Your task to perform on an android device: Open network settings Image 0: 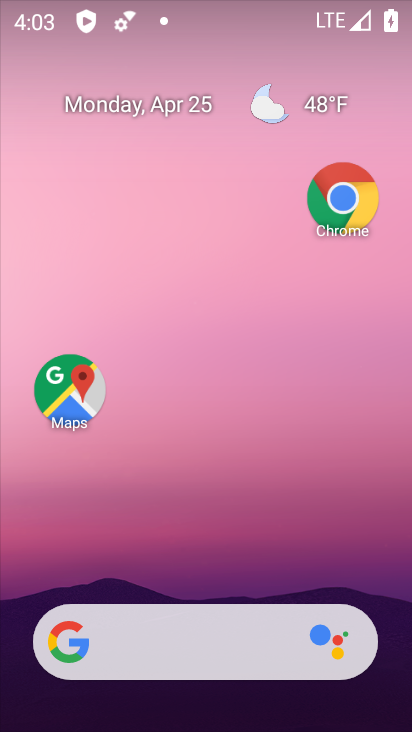
Step 0: drag from (172, 649) to (288, 148)
Your task to perform on an android device: Open network settings Image 1: 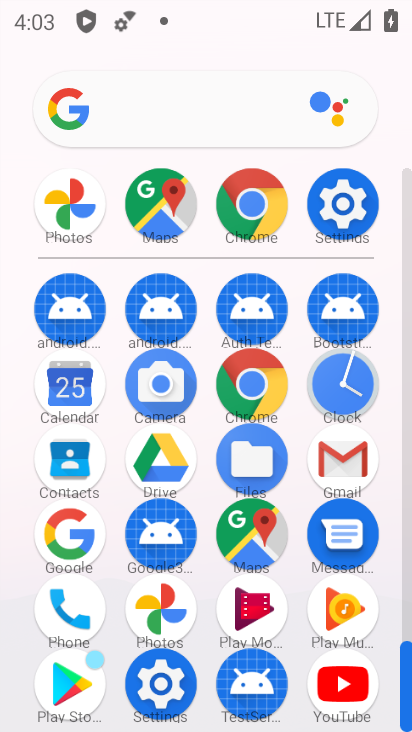
Step 1: click (346, 210)
Your task to perform on an android device: Open network settings Image 2: 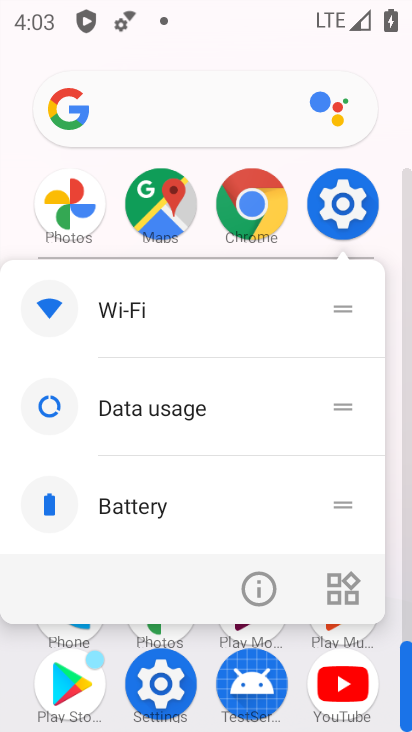
Step 2: click (346, 213)
Your task to perform on an android device: Open network settings Image 3: 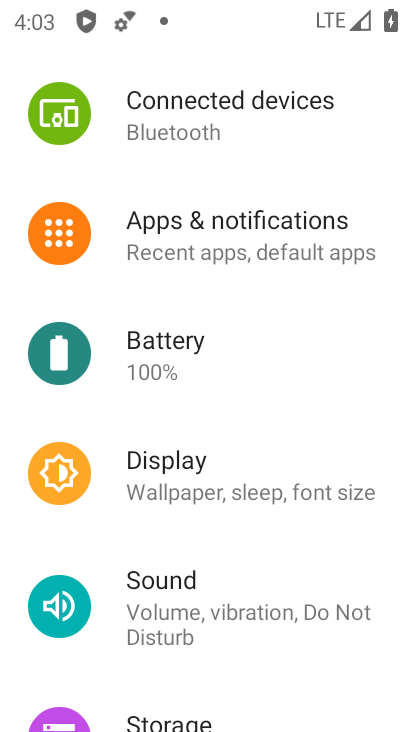
Step 3: drag from (308, 152) to (222, 615)
Your task to perform on an android device: Open network settings Image 4: 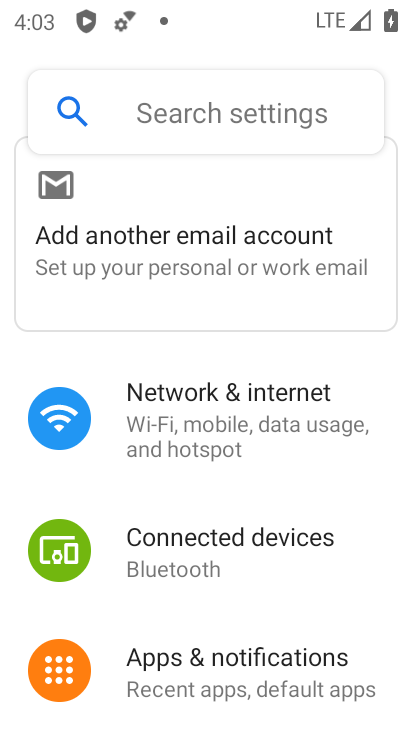
Step 4: click (261, 415)
Your task to perform on an android device: Open network settings Image 5: 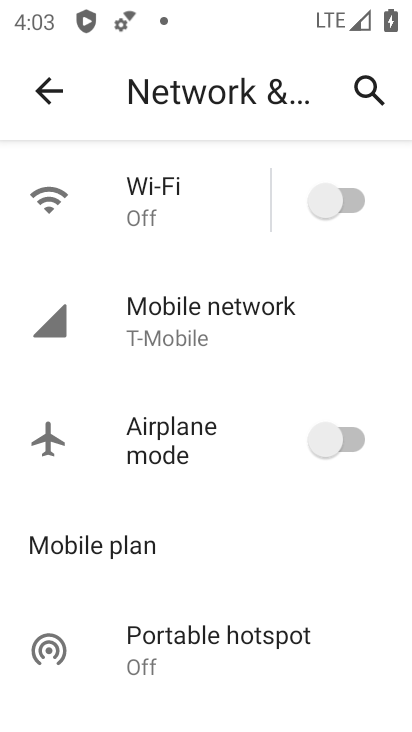
Step 5: task complete